Your task to perform on an android device: see sites visited before in the chrome app Image 0: 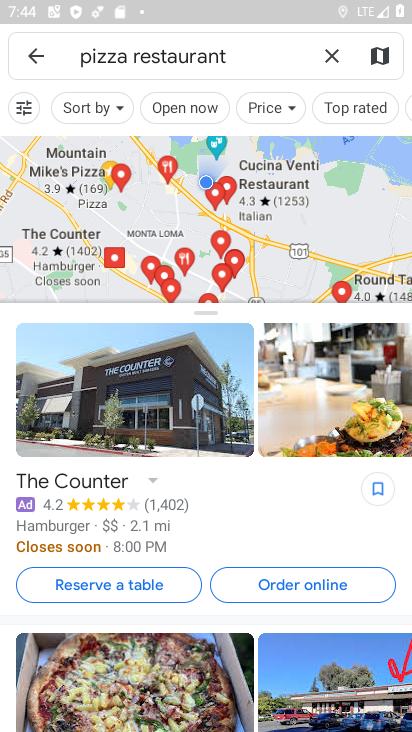
Step 0: press home button
Your task to perform on an android device: see sites visited before in the chrome app Image 1: 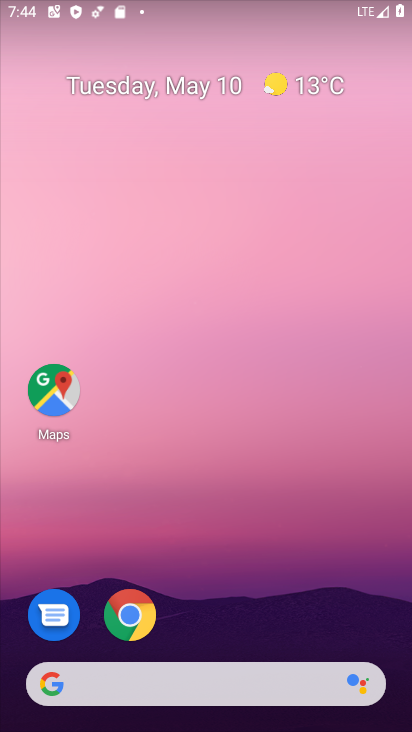
Step 1: drag from (332, 446) to (348, 30)
Your task to perform on an android device: see sites visited before in the chrome app Image 2: 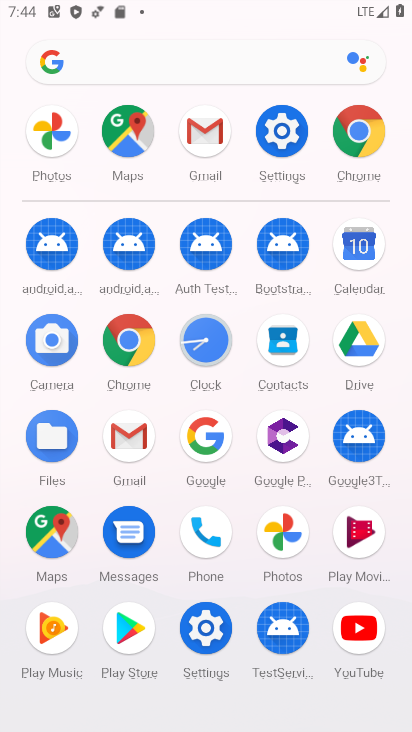
Step 2: click (372, 132)
Your task to perform on an android device: see sites visited before in the chrome app Image 3: 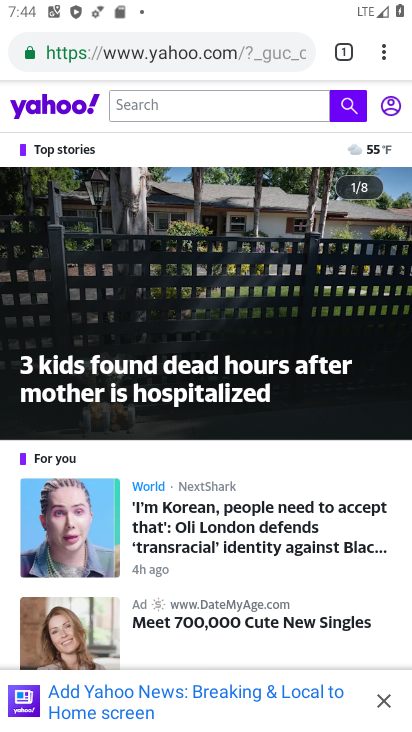
Step 3: click (388, 53)
Your task to perform on an android device: see sites visited before in the chrome app Image 4: 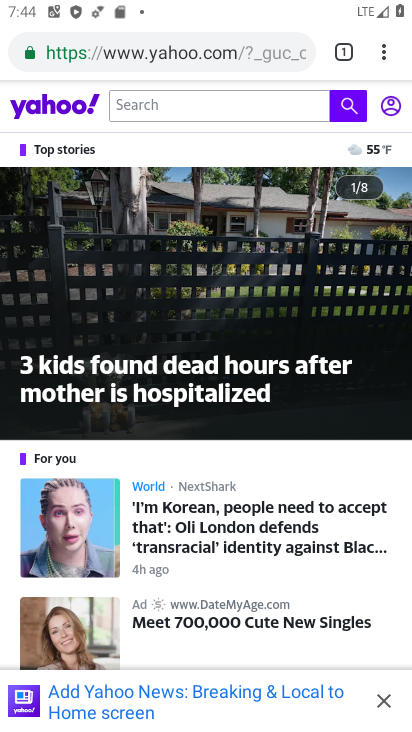
Step 4: click (388, 53)
Your task to perform on an android device: see sites visited before in the chrome app Image 5: 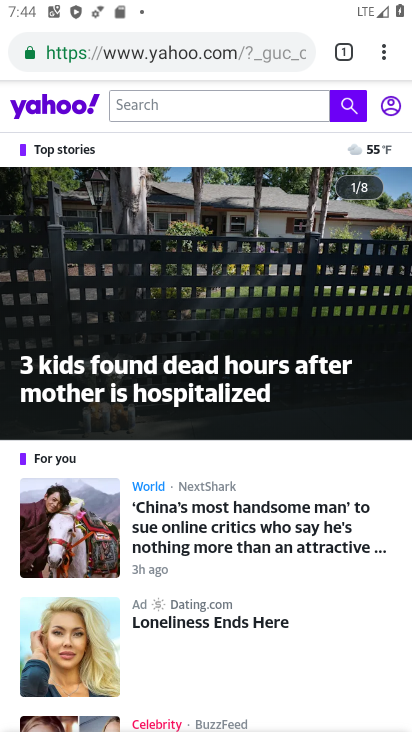
Step 5: task complete